Your task to perform on an android device: Go to Reddit.com Image 0: 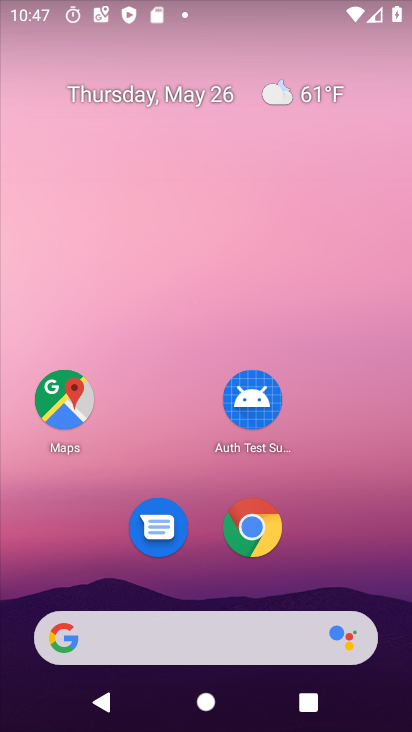
Step 0: click (240, 546)
Your task to perform on an android device: Go to Reddit.com Image 1: 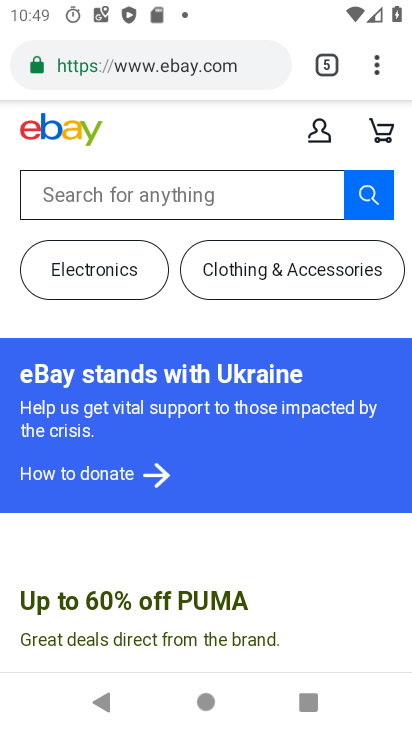
Step 1: click (172, 73)
Your task to perform on an android device: Go to Reddit.com Image 2: 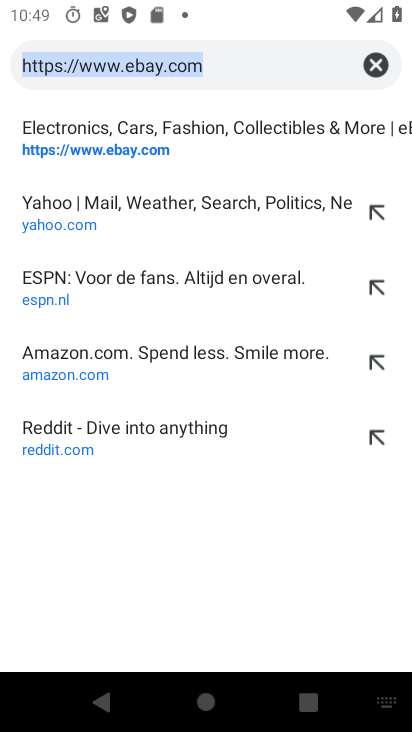
Step 2: click (178, 426)
Your task to perform on an android device: Go to Reddit.com Image 3: 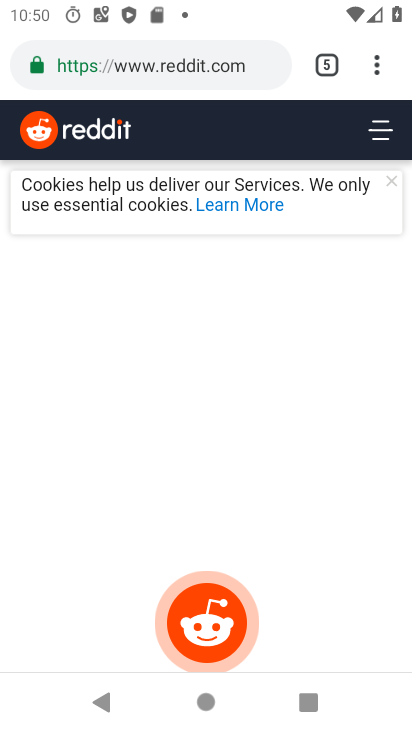
Step 3: task complete